Your task to perform on an android device: delete browsing data in the chrome app Image 0: 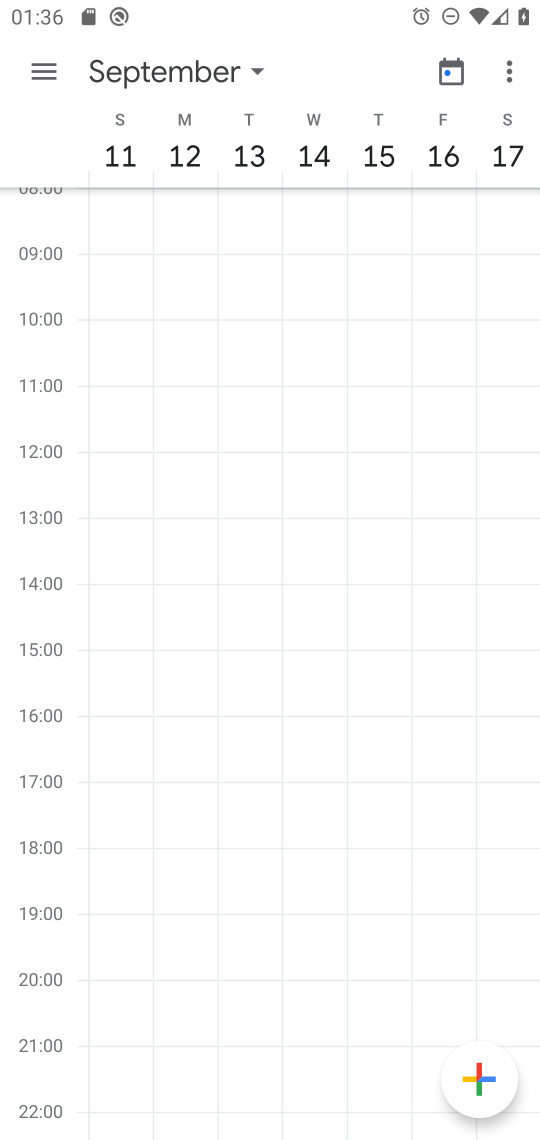
Step 0: press home button
Your task to perform on an android device: delete browsing data in the chrome app Image 1: 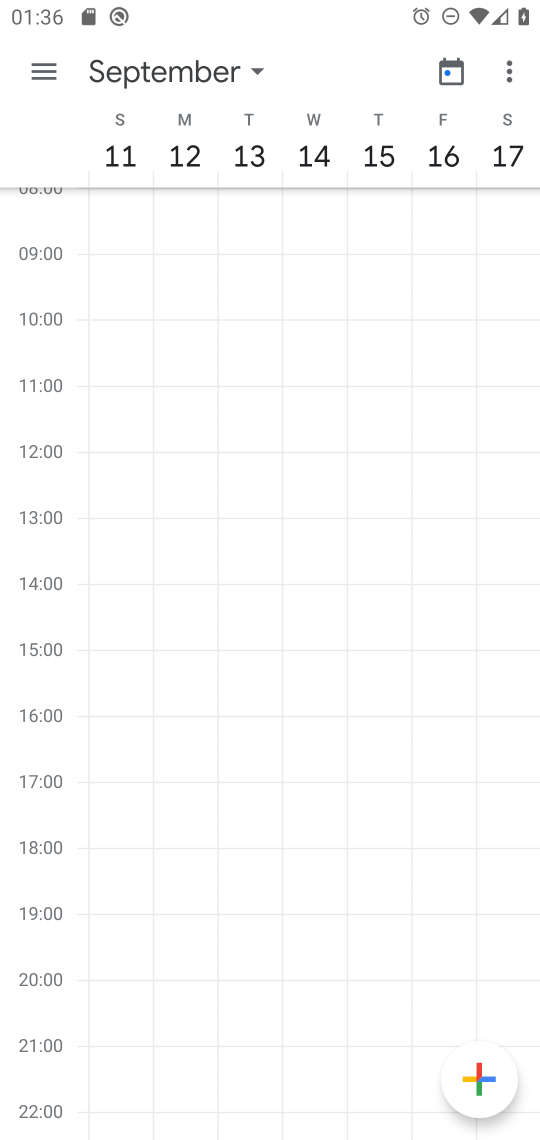
Step 1: press home button
Your task to perform on an android device: delete browsing data in the chrome app Image 2: 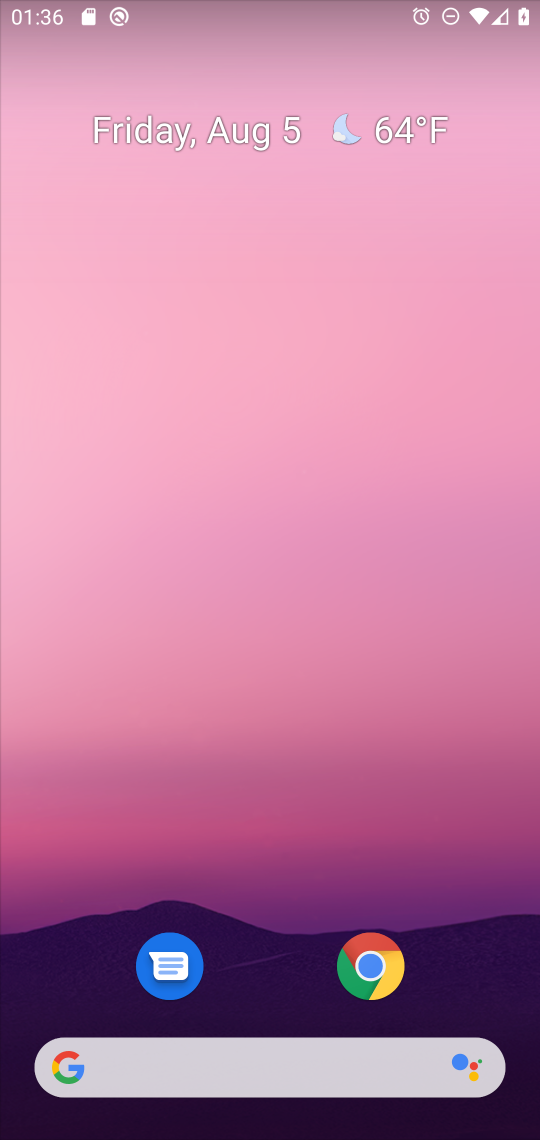
Step 2: click (365, 950)
Your task to perform on an android device: delete browsing data in the chrome app Image 3: 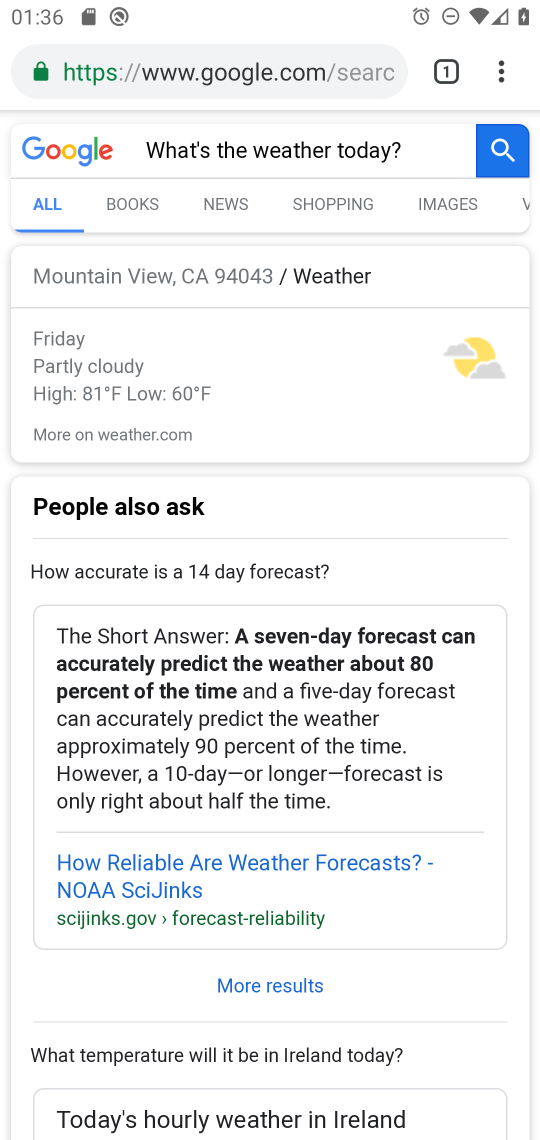
Step 3: press back button
Your task to perform on an android device: delete browsing data in the chrome app Image 4: 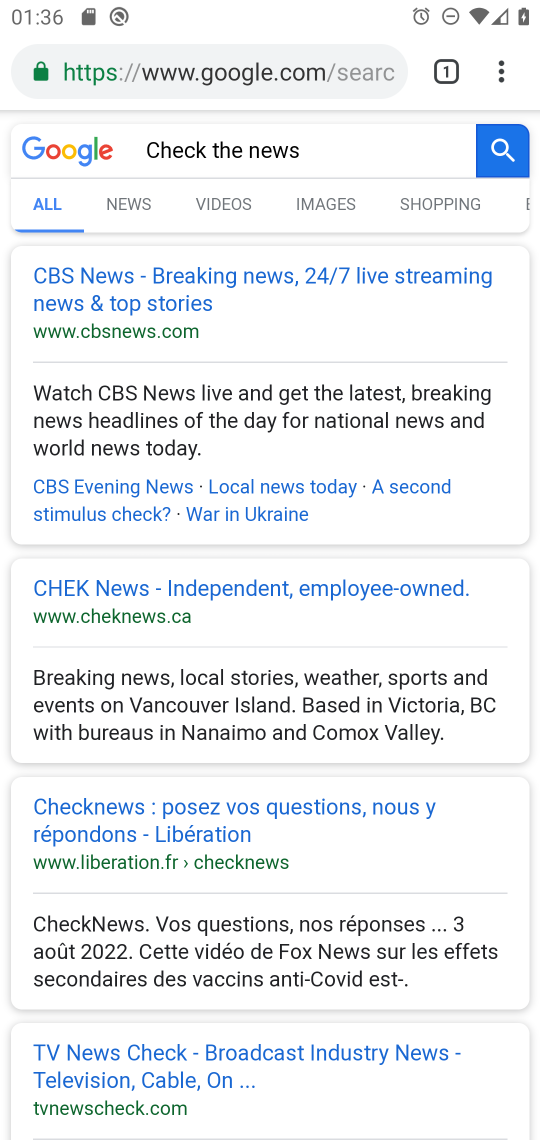
Step 4: press back button
Your task to perform on an android device: delete browsing data in the chrome app Image 5: 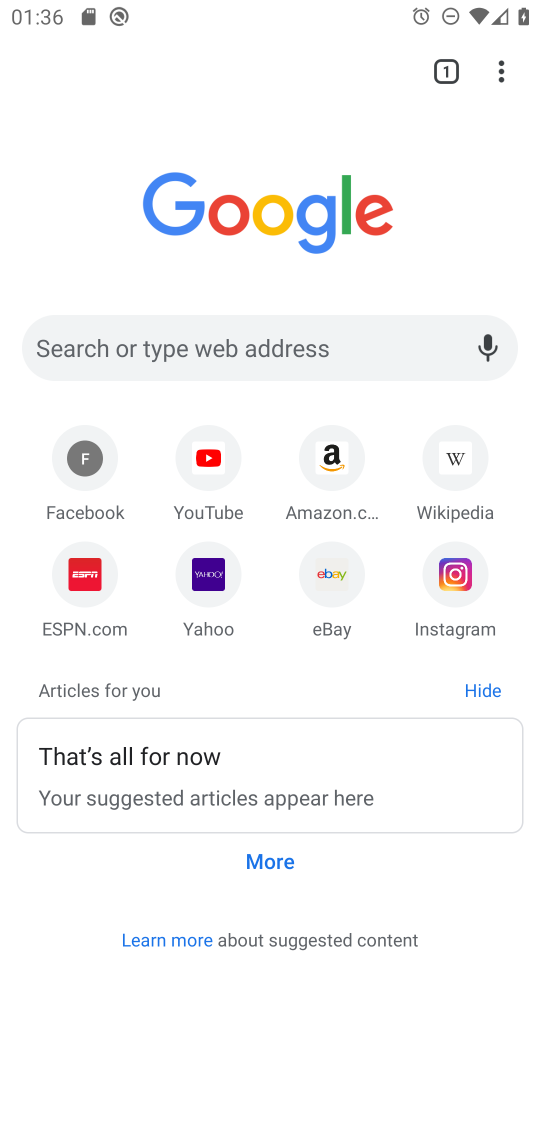
Step 5: click (498, 67)
Your task to perform on an android device: delete browsing data in the chrome app Image 6: 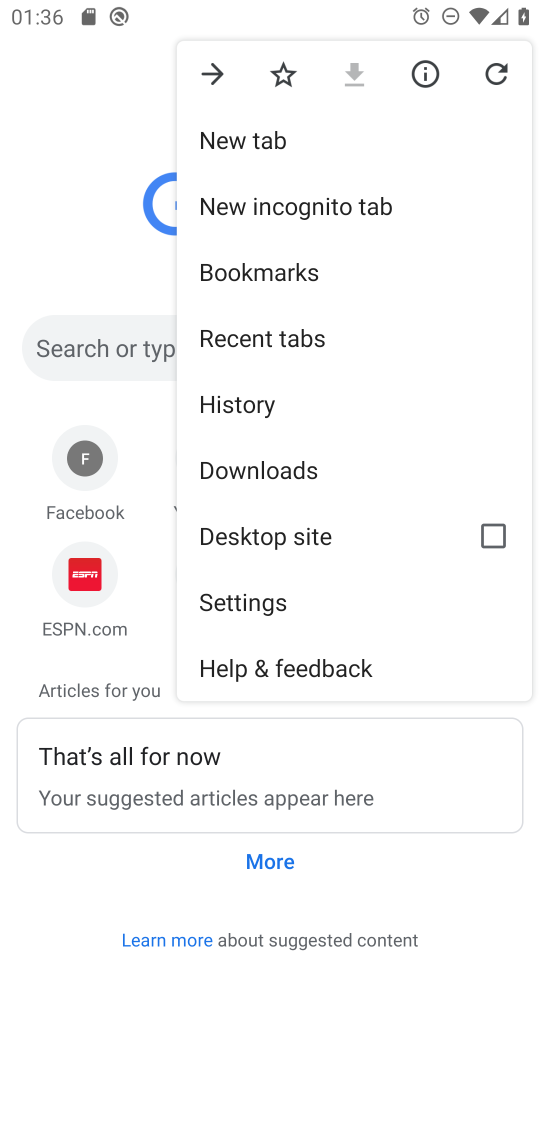
Step 6: click (292, 599)
Your task to perform on an android device: delete browsing data in the chrome app Image 7: 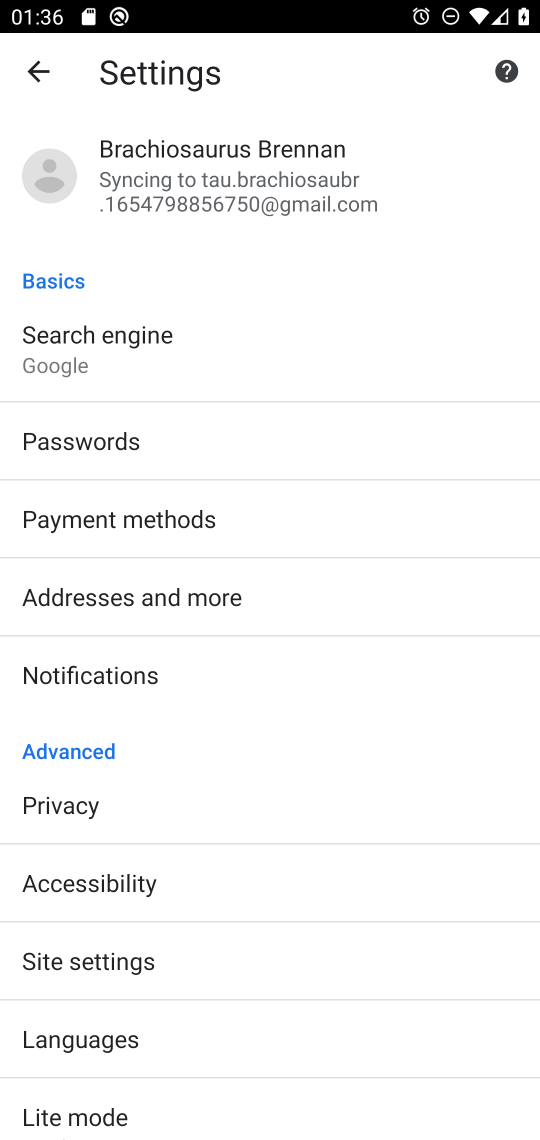
Step 7: click (77, 810)
Your task to perform on an android device: delete browsing data in the chrome app Image 8: 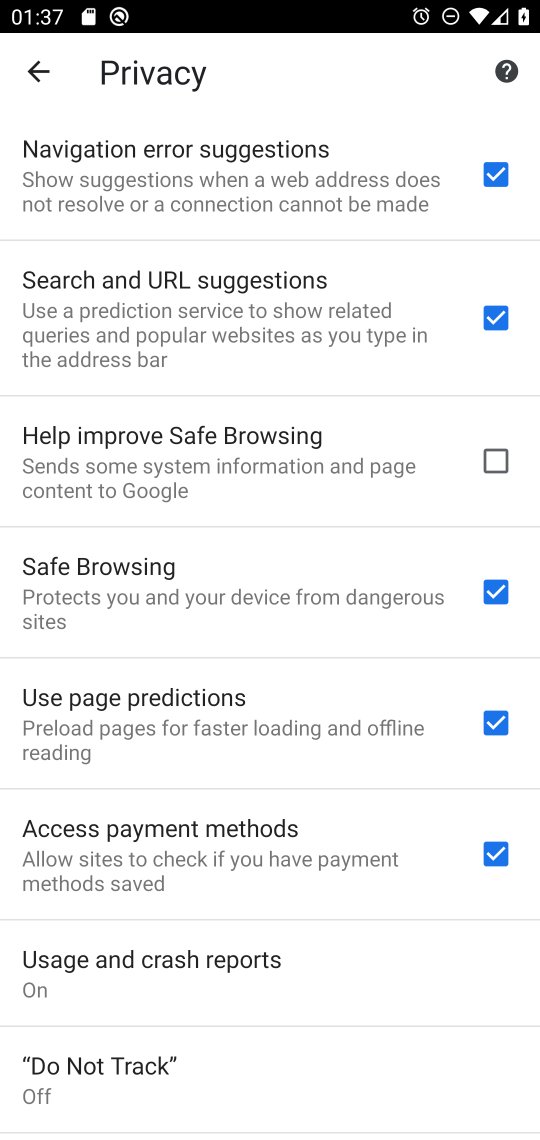
Step 8: drag from (227, 1021) to (346, 129)
Your task to perform on an android device: delete browsing data in the chrome app Image 9: 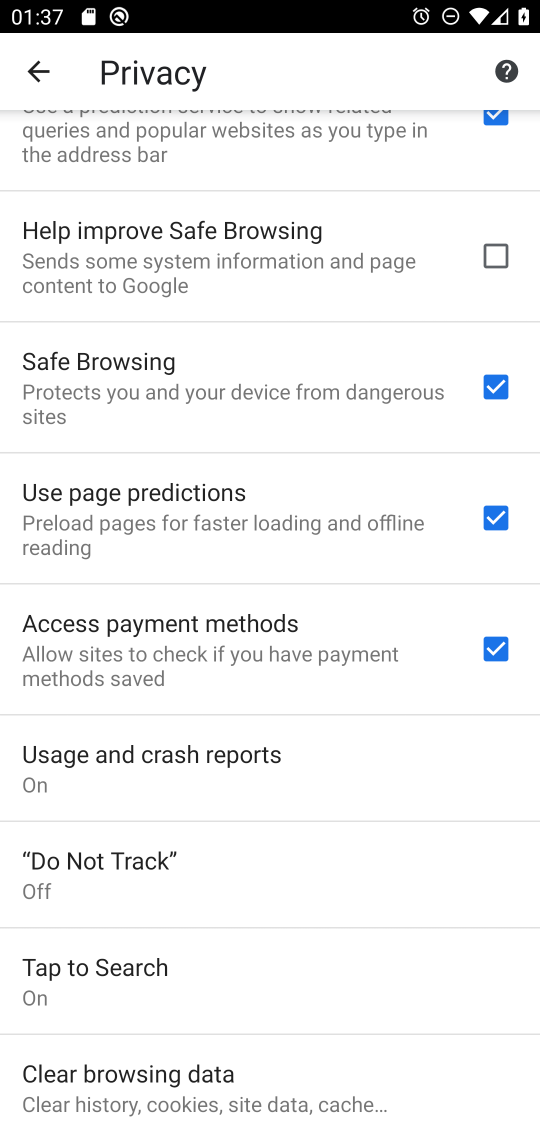
Step 9: click (254, 1099)
Your task to perform on an android device: delete browsing data in the chrome app Image 10: 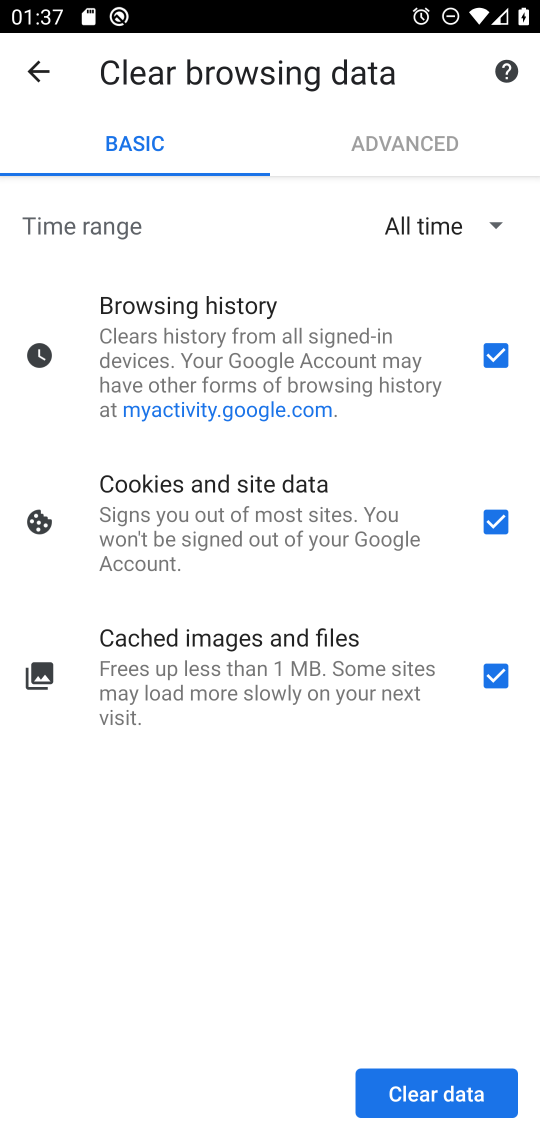
Step 10: click (445, 1100)
Your task to perform on an android device: delete browsing data in the chrome app Image 11: 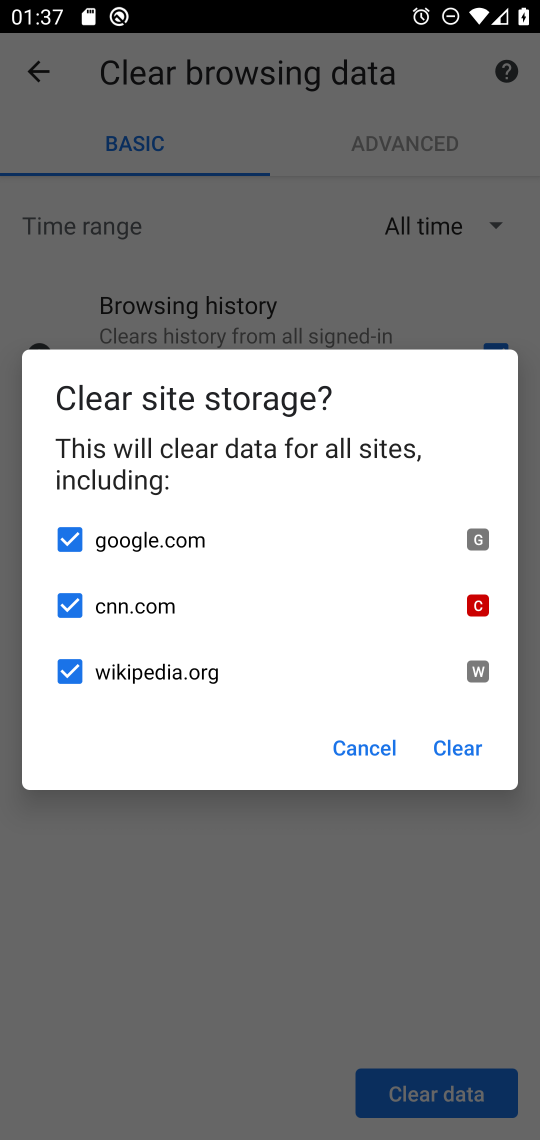
Step 11: click (477, 740)
Your task to perform on an android device: delete browsing data in the chrome app Image 12: 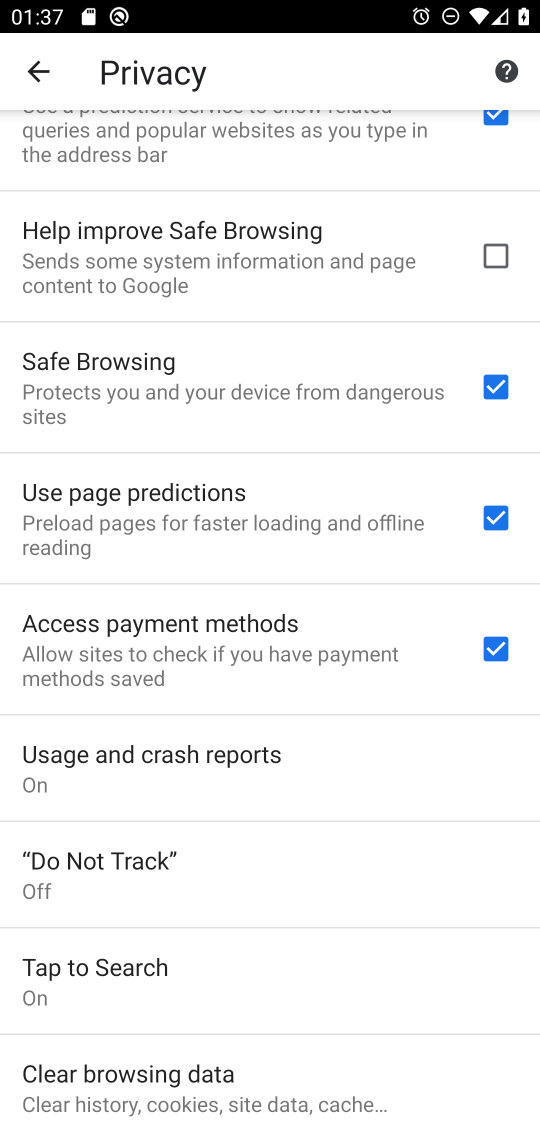
Step 12: task complete